Your task to perform on an android device: Open Amazon Image 0: 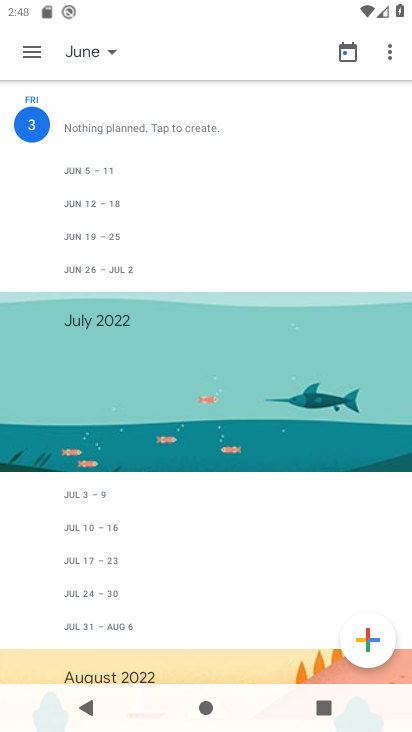
Step 0: press home button
Your task to perform on an android device: Open Amazon Image 1: 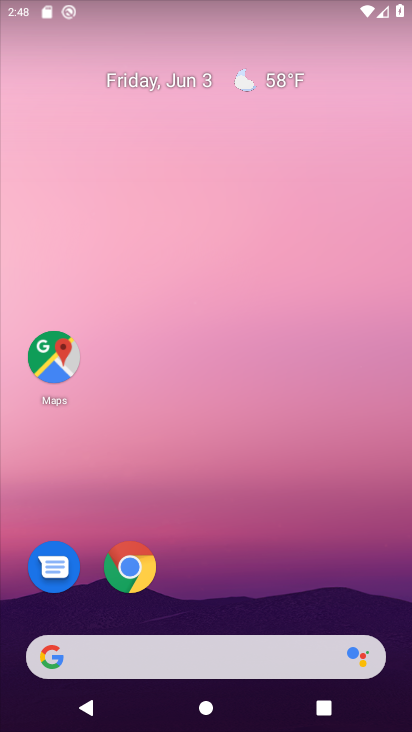
Step 1: click (145, 572)
Your task to perform on an android device: Open Amazon Image 2: 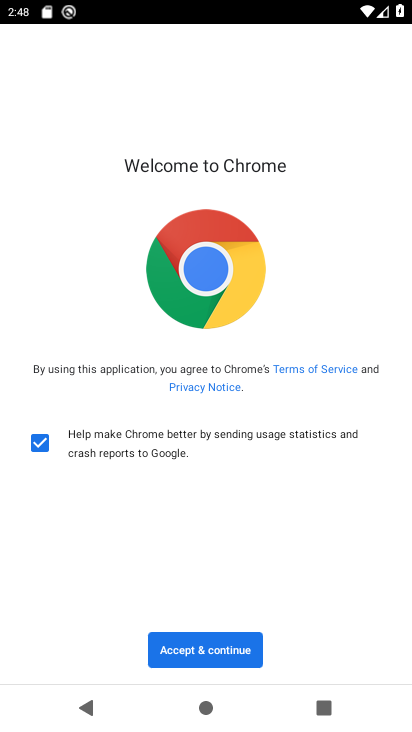
Step 2: click (227, 665)
Your task to perform on an android device: Open Amazon Image 3: 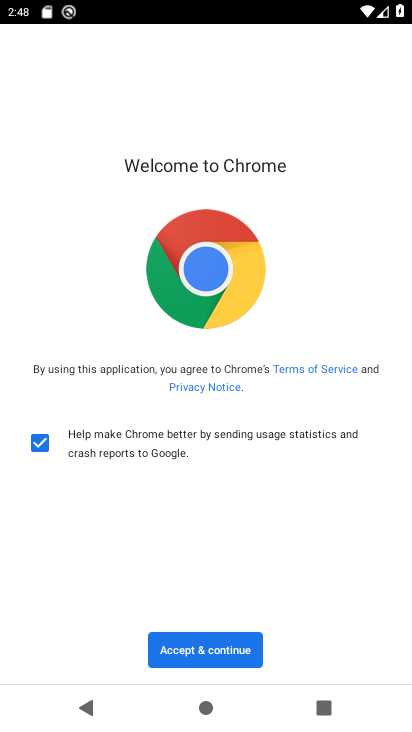
Step 3: click (231, 652)
Your task to perform on an android device: Open Amazon Image 4: 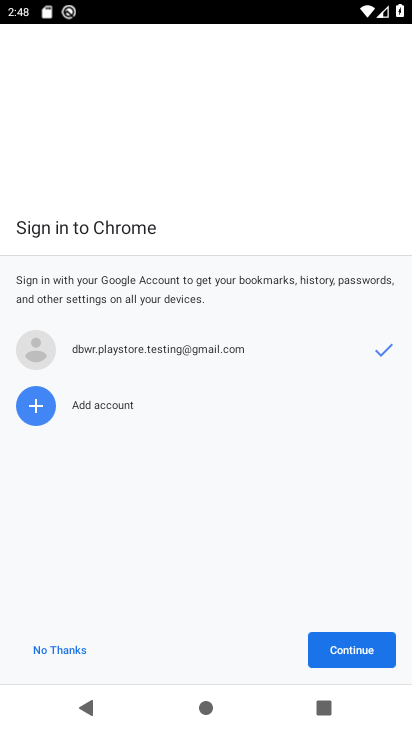
Step 4: click (370, 646)
Your task to perform on an android device: Open Amazon Image 5: 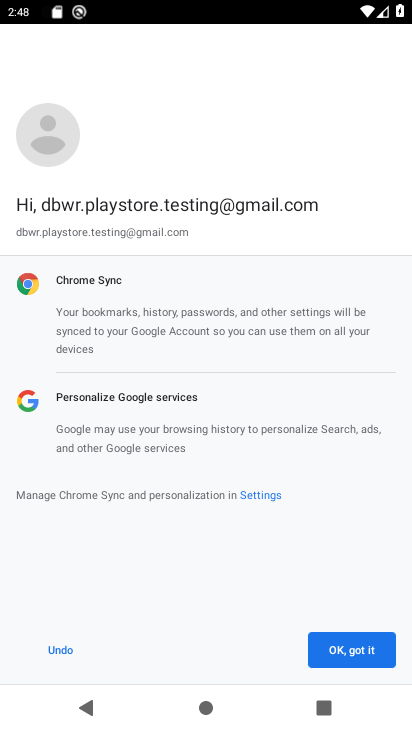
Step 5: click (369, 645)
Your task to perform on an android device: Open Amazon Image 6: 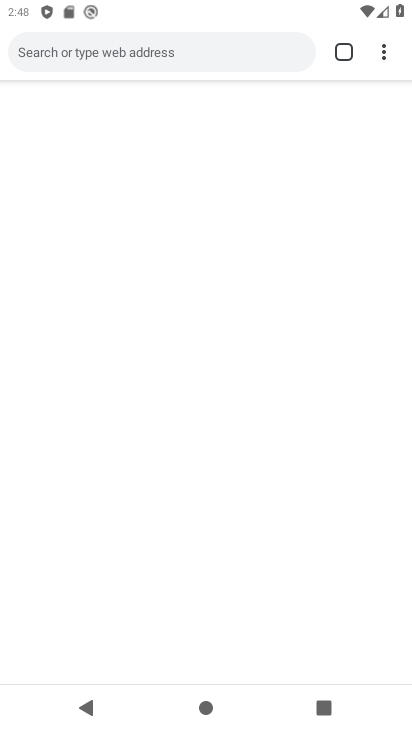
Step 6: click (364, 652)
Your task to perform on an android device: Open Amazon Image 7: 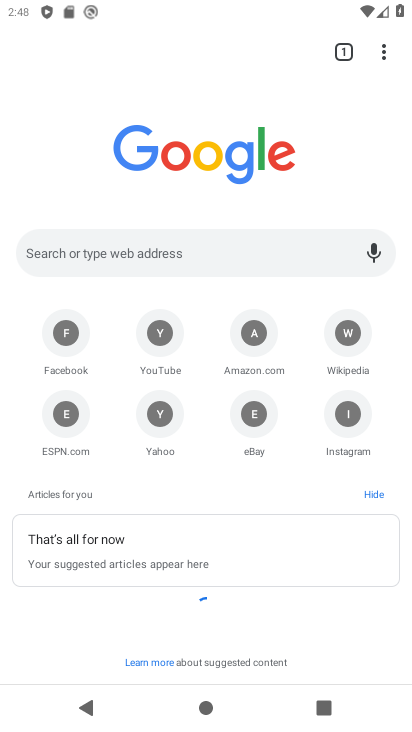
Step 7: click (254, 344)
Your task to perform on an android device: Open Amazon Image 8: 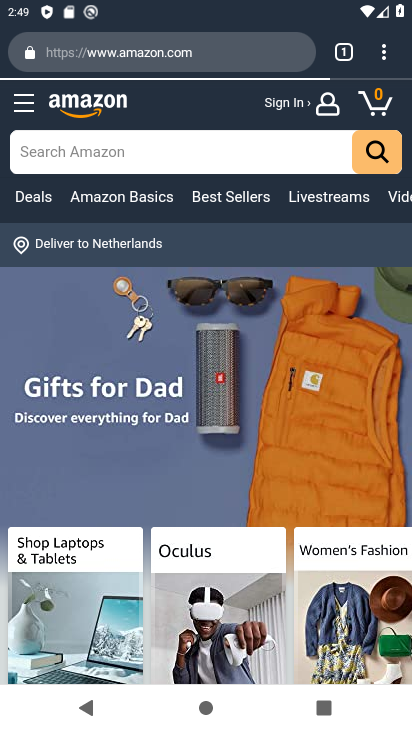
Step 8: task complete